Your task to perform on an android device: open sync settings in chrome Image 0: 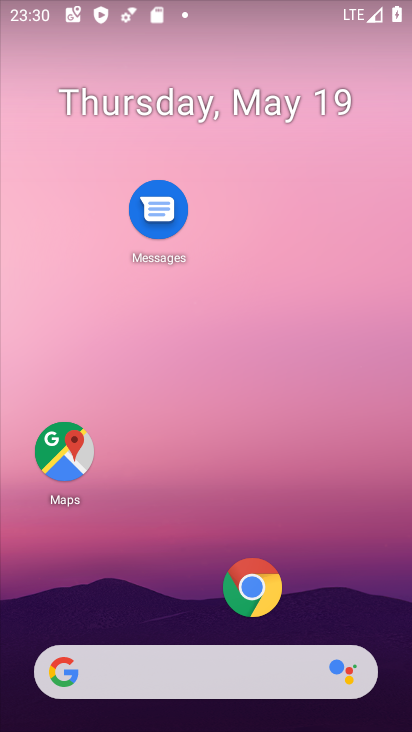
Step 0: click (275, 597)
Your task to perform on an android device: open sync settings in chrome Image 1: 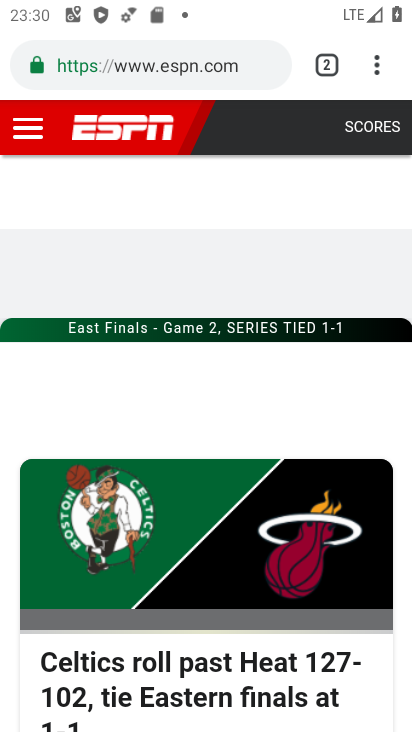
Step 1: click (394, 64)
Your task to perform on an android device: open sync settings in chrome Image 2: 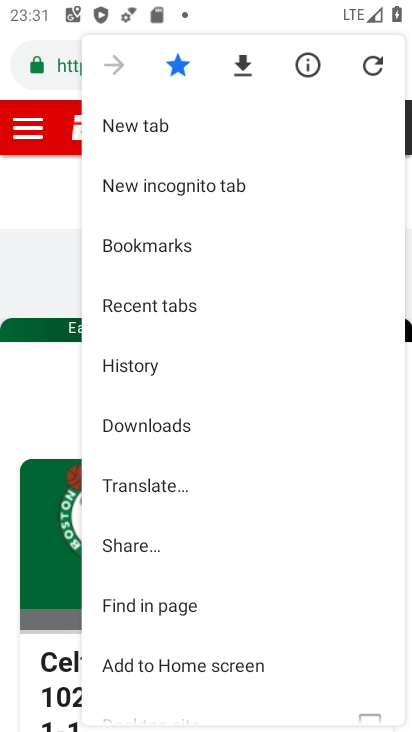
Step 2: drag from (247, 632) to (258, 160)
Your task to perform on an android device: open sync settings in chrome Image 3: 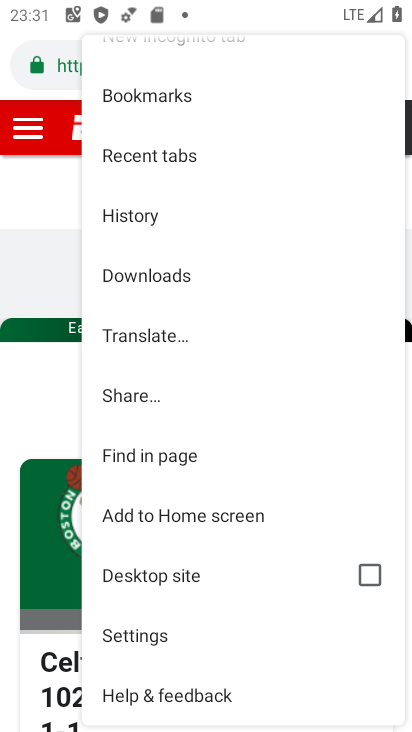
Step 3: click (122, 634)
Your task to perform on an android device: open sync settings in chrome Image 4: 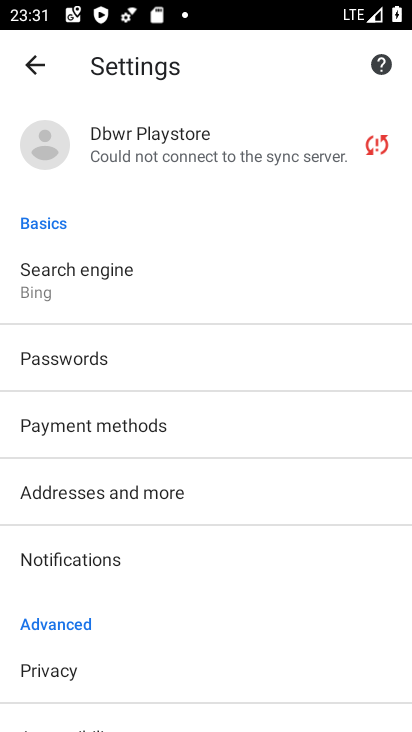
Step 4: click (234, 167)
Your task to perform on an android device: open sync settings in chrome Image 5: 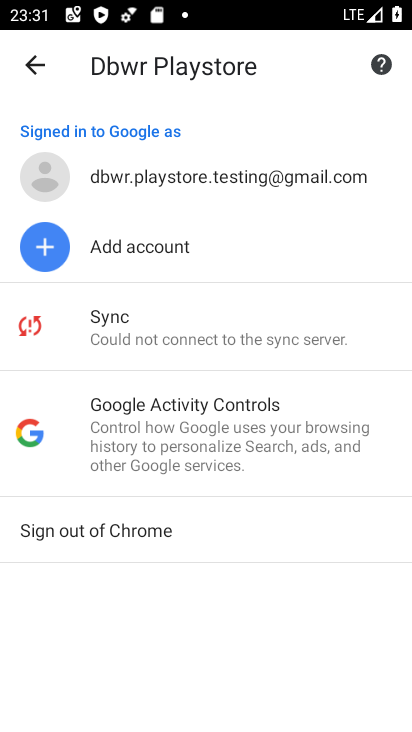
Step 5: click (136, 320)
Your task to perform on an android device: open sync settings in chrome Image 6: 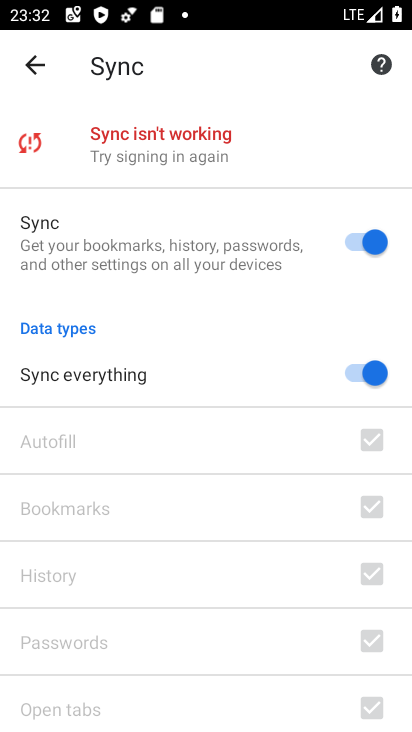
Step 6: task complete